Your task to perform on an android device: Clear all items from cart on target.com. Image 0: 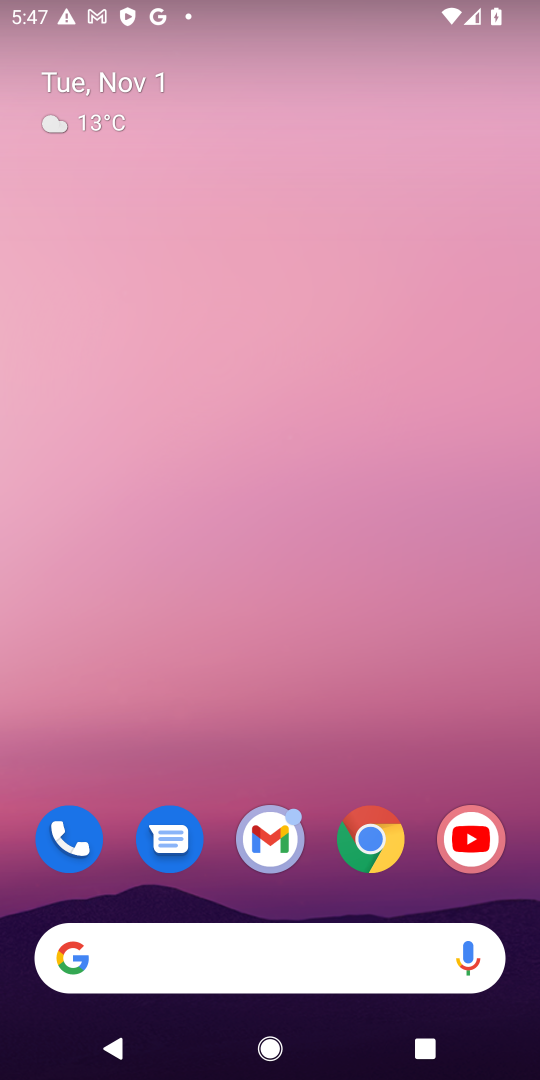
Step 0: drag from (328, 902) to (458, 106)
Your task to perform on an android device: Clear all items from cart on target.com. Image 1: 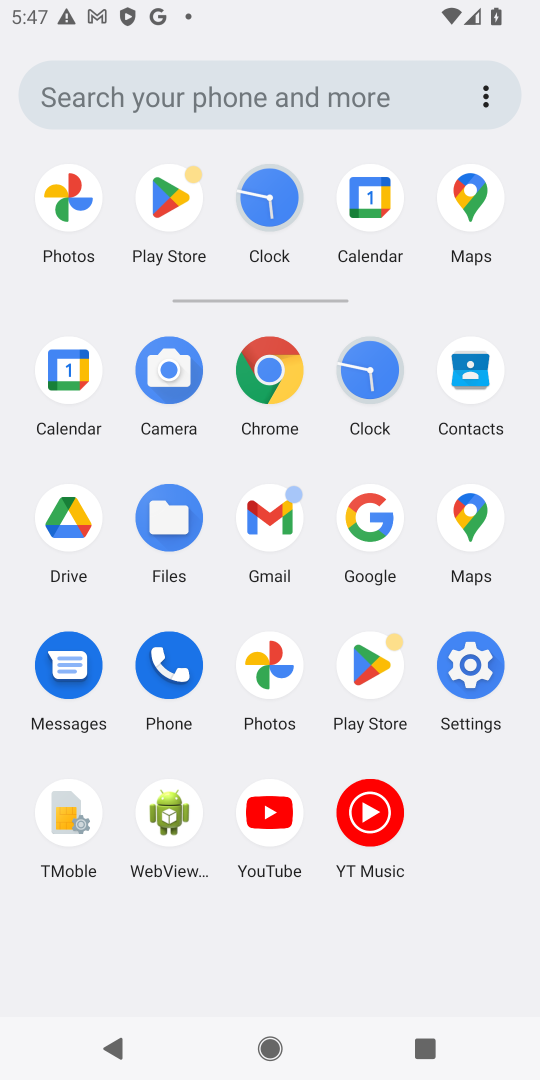
Step 1: click (271, 367)
Your task to perform on an android device: Clear all items from cart on target.com. Image 2: 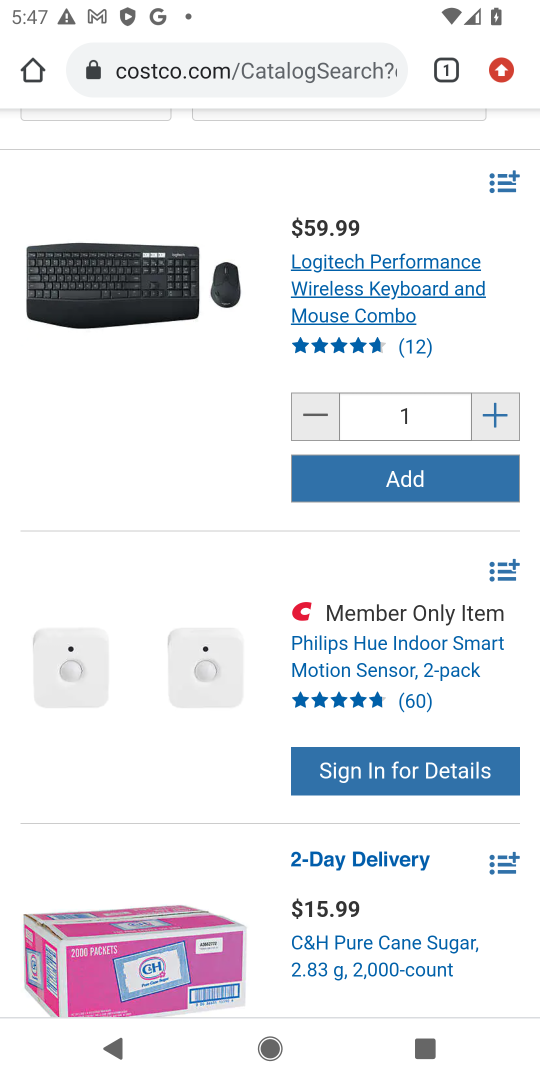
Step 2: click (306, 58)
Your task to perform on an android device: Clear all items from cart on target.com. Image 3: 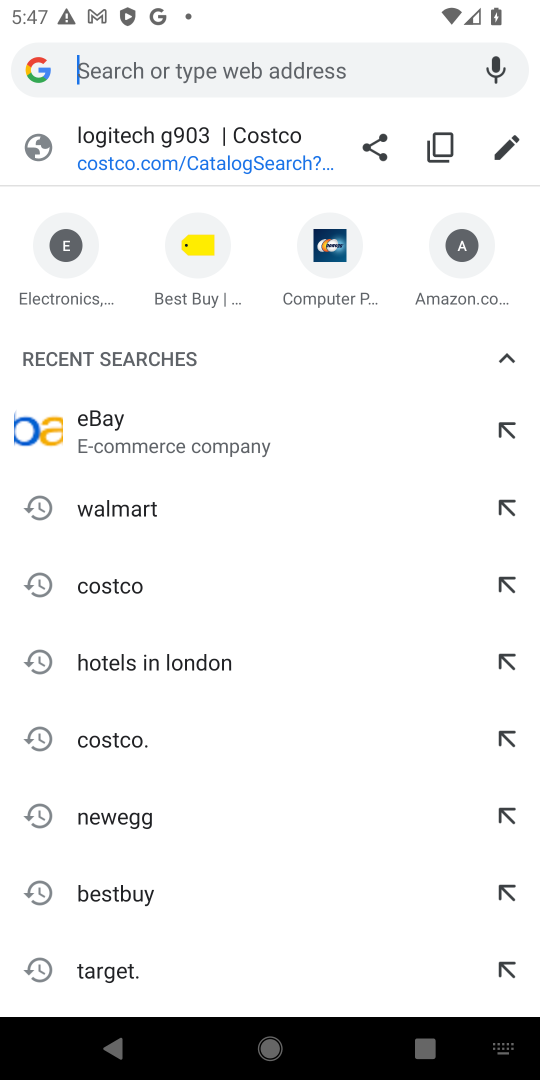
Step 3: type "target.com"
Your task to perform on an android device: Clear all items from cart on target.com. Image 4: 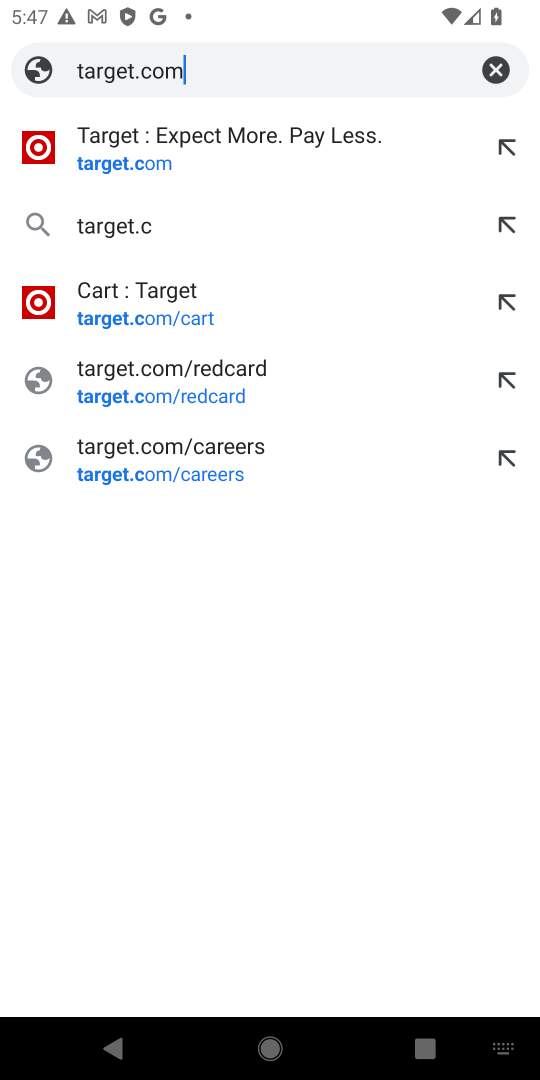
Step 4: press enter
Your task to perform on an android device: Clear all items from cart on target.com. Image 5: 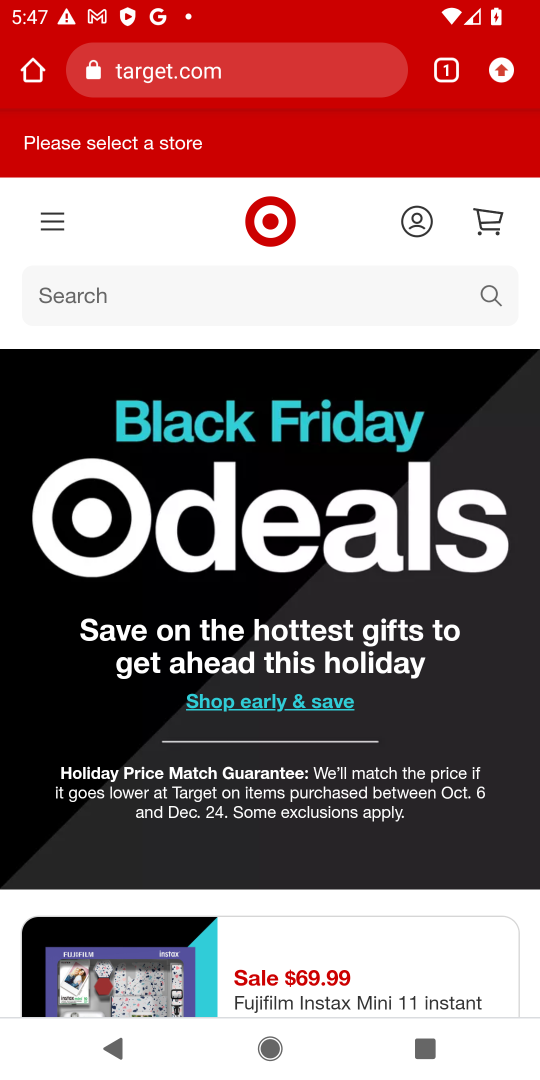
Step 5: click (504, 213)
Your task to perform on an android device: Clear all items from cart on target.com. Image 6: 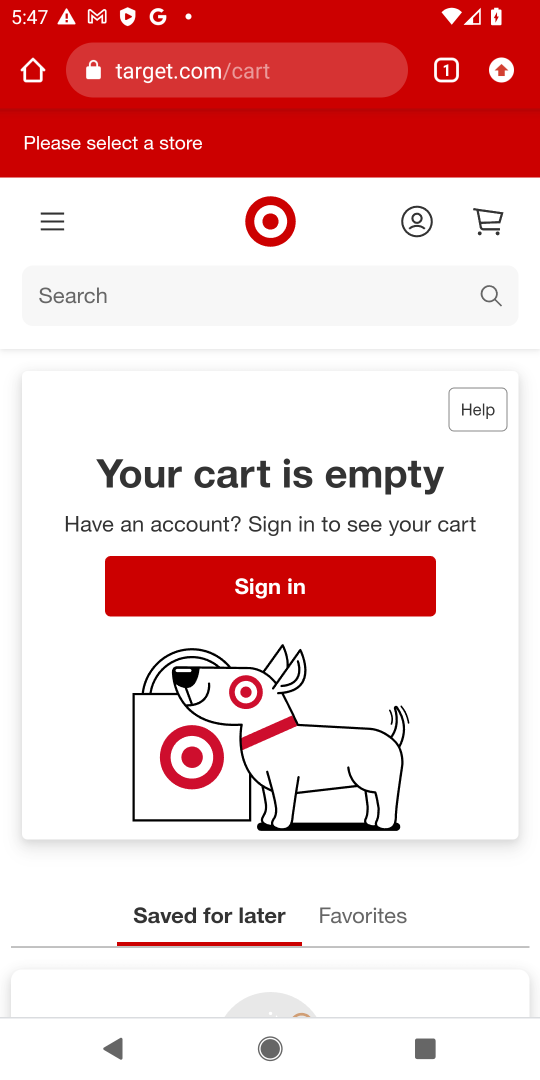
Step 6: task complete